Your task to perform on an android device: find photos in the google photos app Image 0: 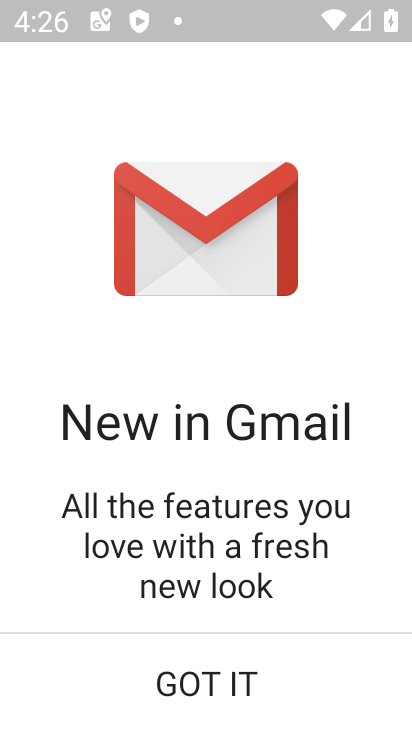
Step 0: click (217, 677)
Your task to perform on an android device: find photos in the google photos app Image 1: 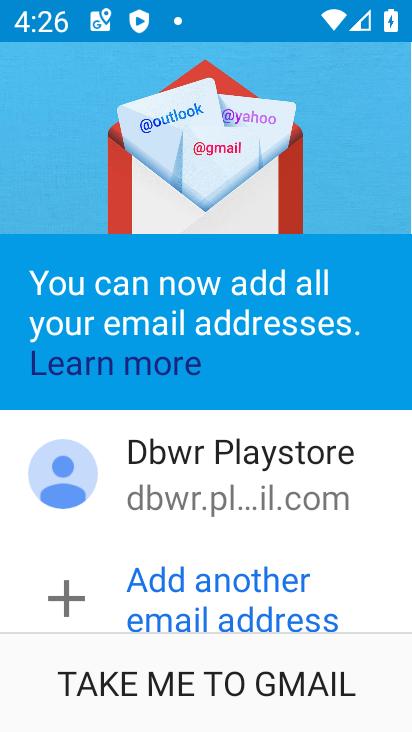
Step 1: click (209, 678)
Your task to perform on an android device: find photos in the google photos app Image 2: 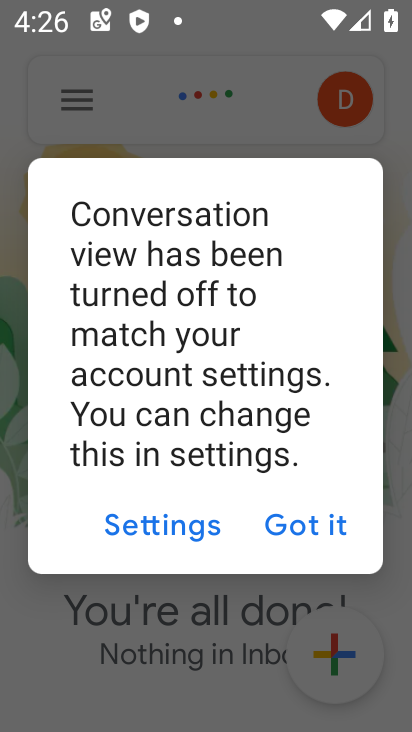
Step 2: click (280, 530)
Your task to perform on an android device: find photos in the google photos app Image 3: 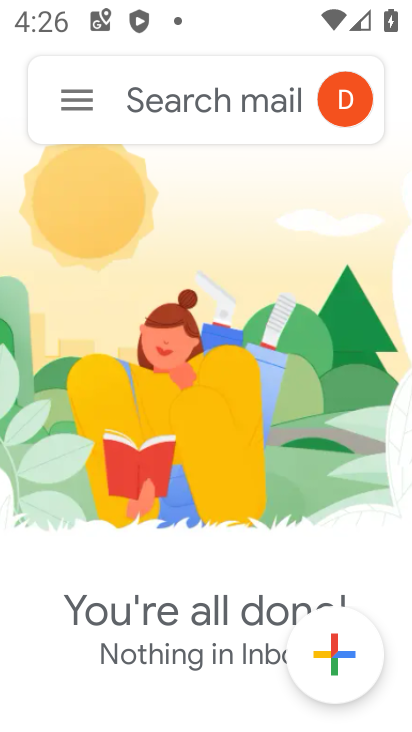
Step 3: press home button
Your task to perform on an android device: find photos in the google photos app Image 4: 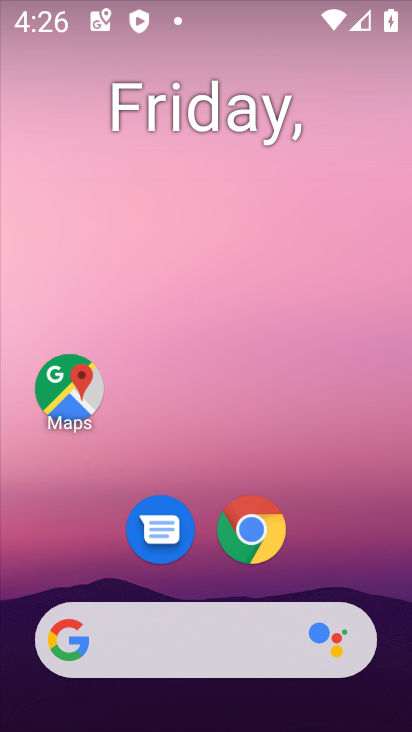
Step 4: drag from (325, 553) to (310, 87)
Your task to perform on an android device: find photos in the google photos app Image 5: 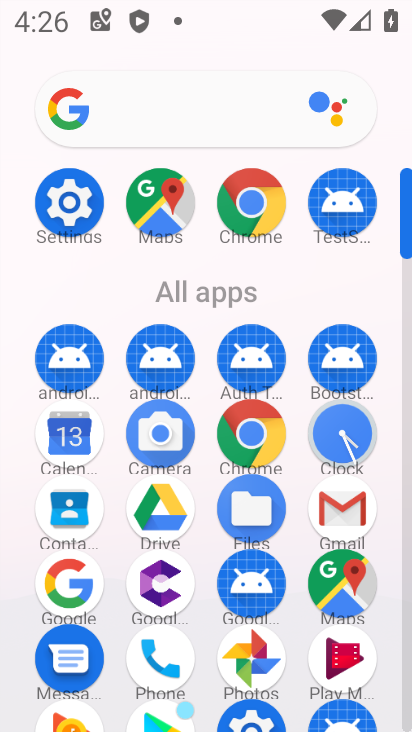
Step 5: click (259, 649)
Your task to perform on an android device: find photos in the google photos app Image 6: 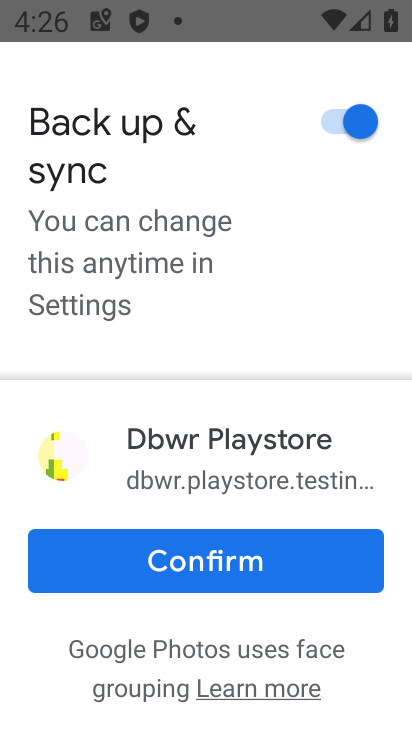
Step 6: click (211, 564)
Your task to perform on an android device: find photos in the google photos app Image 7: 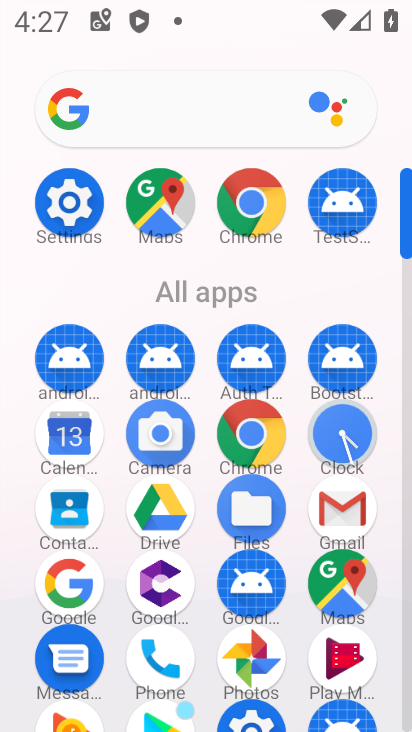
Step 7: drag from (313, 410) to (326, 293)
Your task to perform on an android device: find photos in the google photos app Image 8: 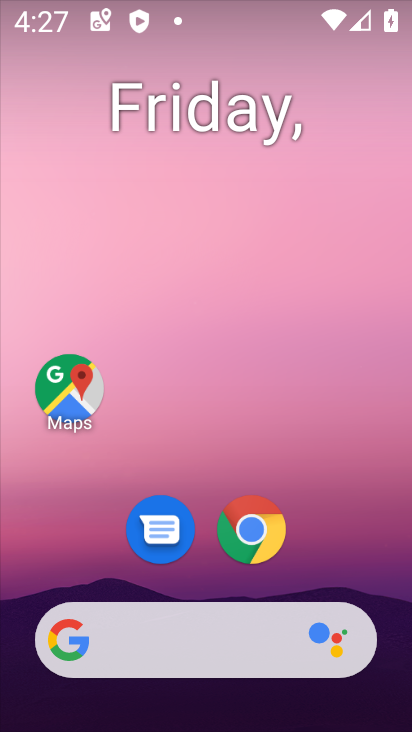
Step 8: drag from (320, 437) to (320, 156)
Your task to perform on an android device: find photos in the google photos app Image 9: 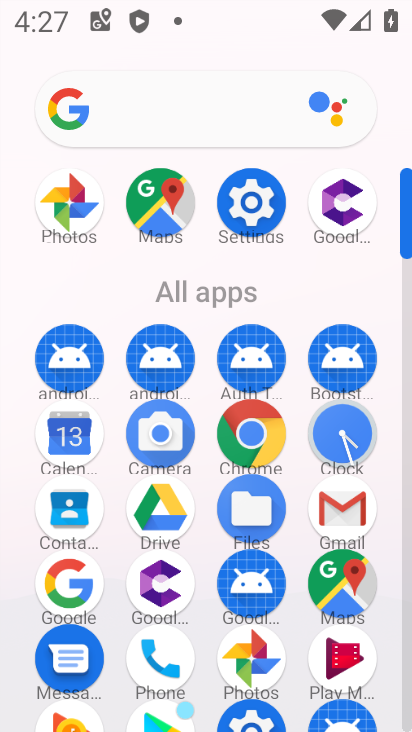
Step 9: click (259, 655)
Your task to perform on an android device: find photos in the google photos app Image 10: 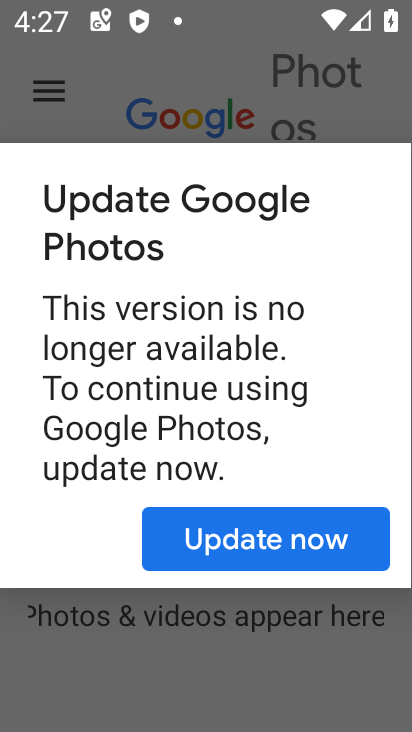
Step 10: click (268, 544)
Your task to perform on an android device: find photos in the google photos app Image 11: 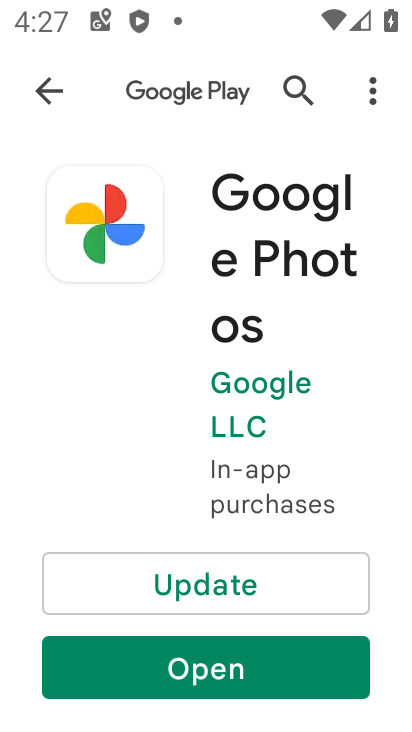
Step 11: click (220, 665)
Your task to perform on an android device: find photos in the google photos app Image 12: 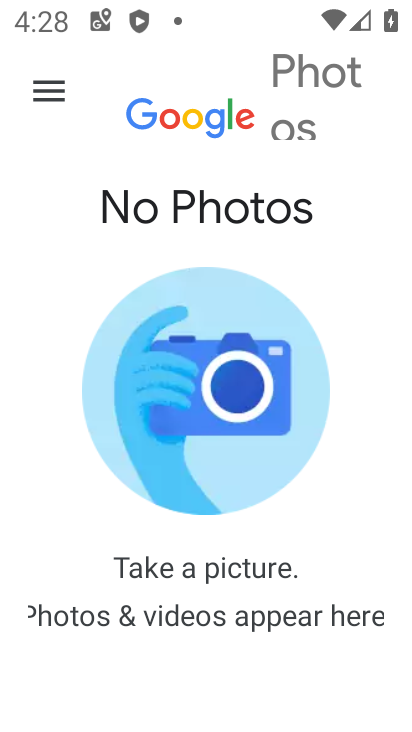
Step 12: task complete